Your task to perform on an android device: change keyboard looks Image 0: 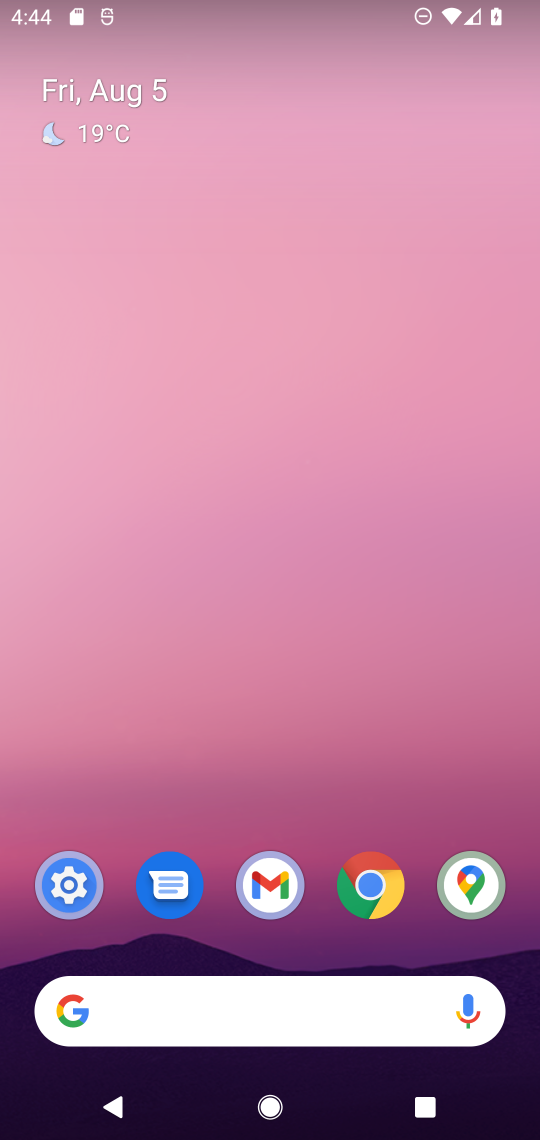
Step 0: drag from (326, 882) to (330, 30)
Your task to perform on an android device: change keyboard looks Image 1: 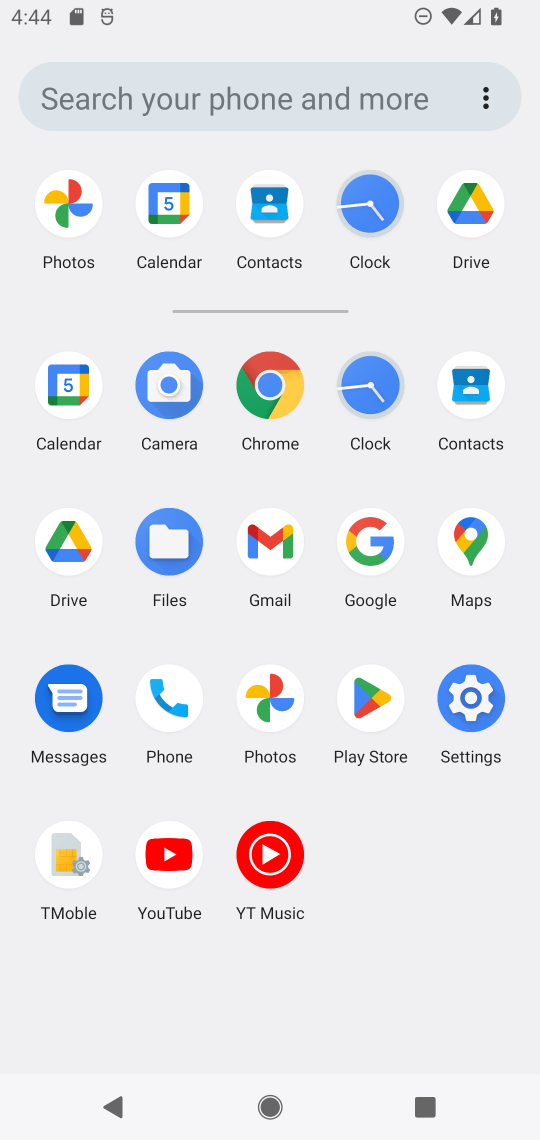
Step 1: click (469, 706)
Your task to perform on an android device: change keyboard looks Image 2: 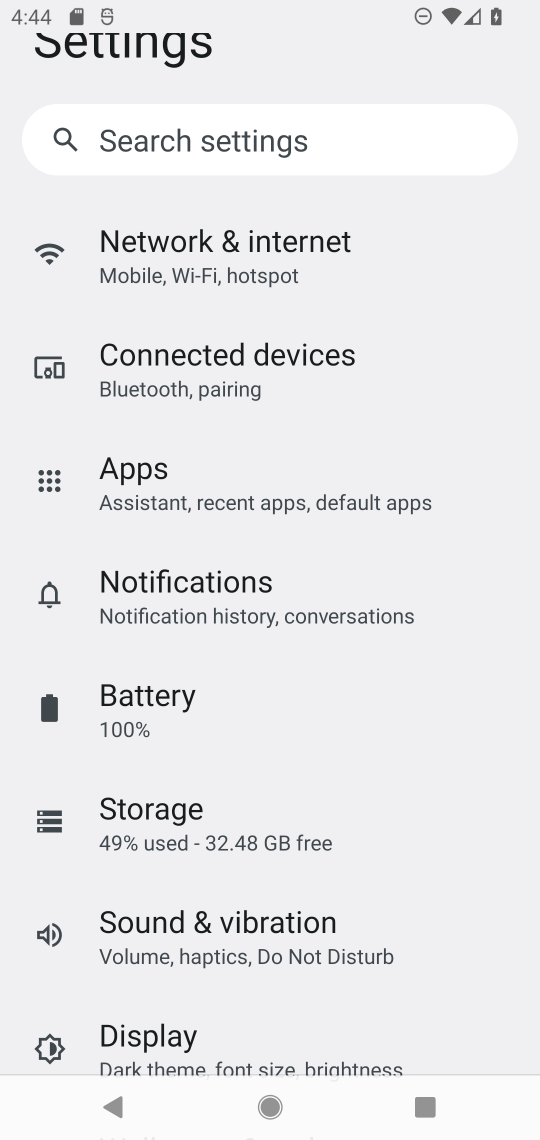
Step 2: drag from (205, 981) to (235, 359)
Your task to perform on an android device: change keyboard looks Image 3: 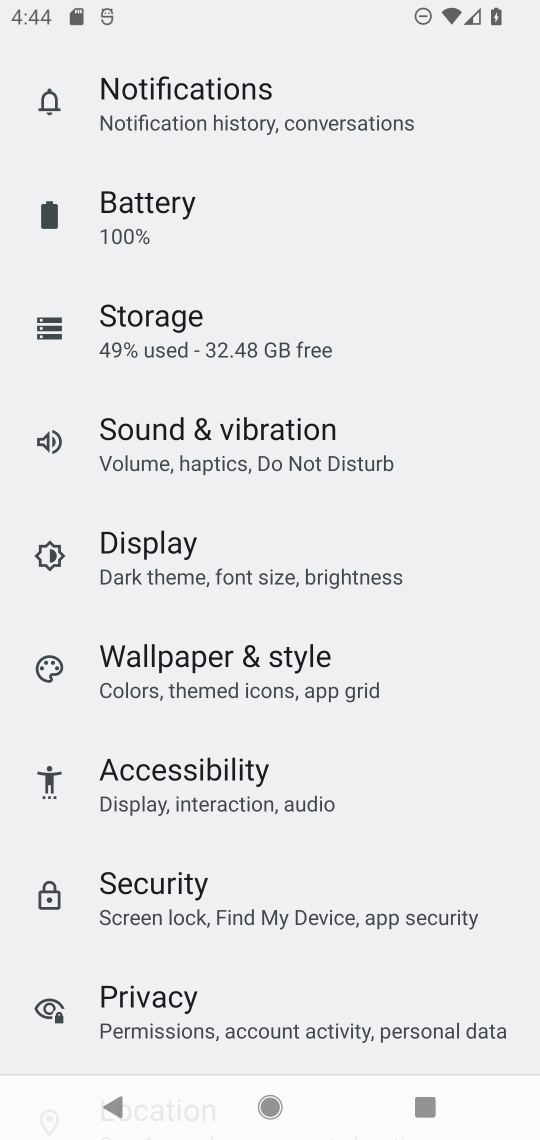
Step 3: drag from (238, 863) to (265, 540)
Your task to perform on an android device: change keyboard looks Image 4: 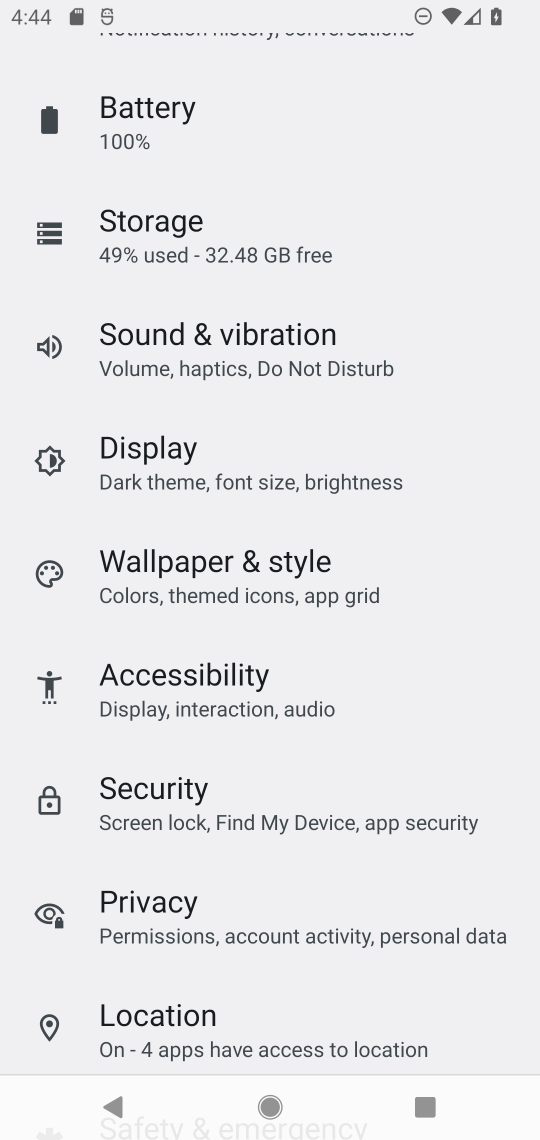
Step 4: drag from (210, 824) to (227, 457)
Your task to perform on an android device: change keyboard looks Image 5: 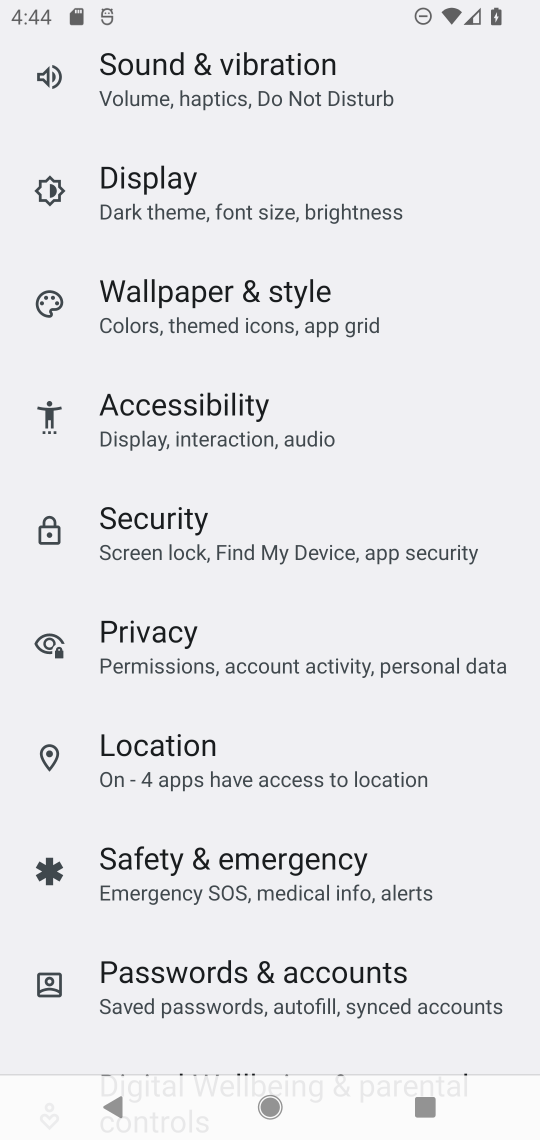
Step 5: drag from (187, 956) to (215, 303)
Your task to perform on an android device: change keyboard looks Image 6: 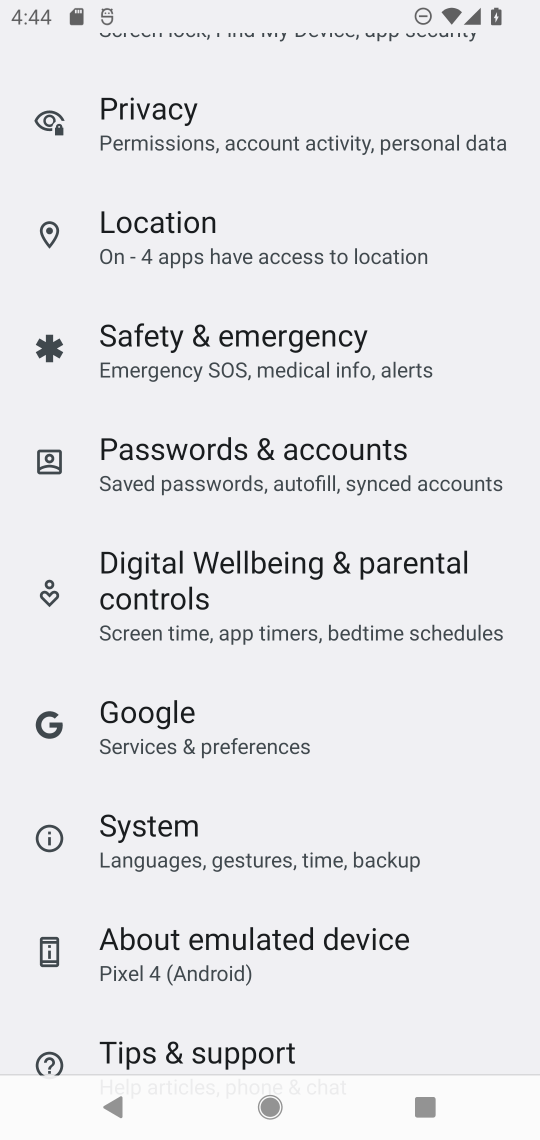
Step 6: drag from (197, 962) to (188, 403)
Your task to perform on an android device: change keyboard looks Image 7: 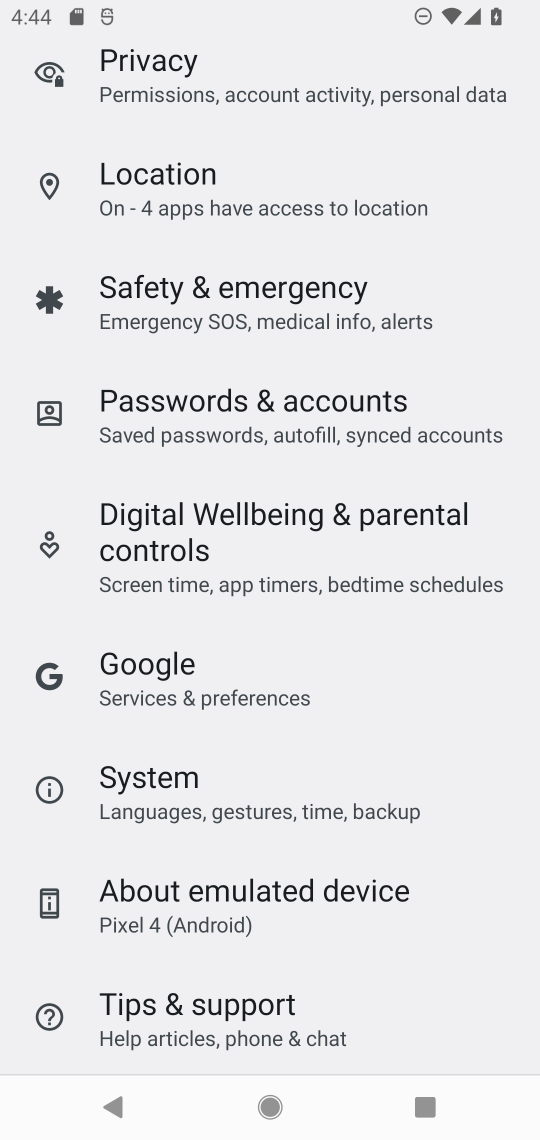
Step 7: click (179, 802)
Your task to perform on an android device: change keyboard looks Image 8: 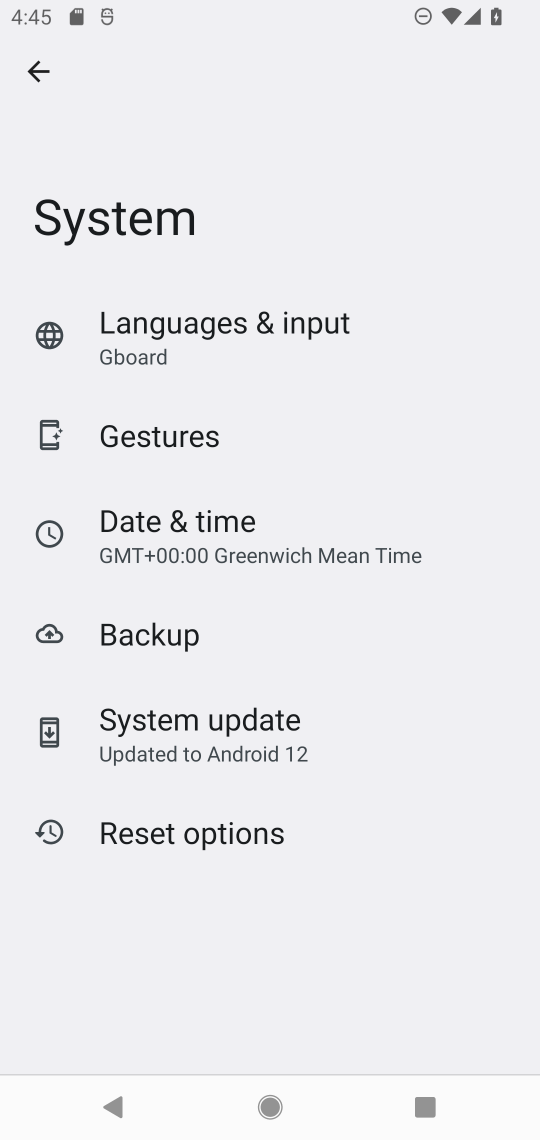
Step 8: click (192, 346)
Your task to perform on an android device: change keyboard looks Image 9: 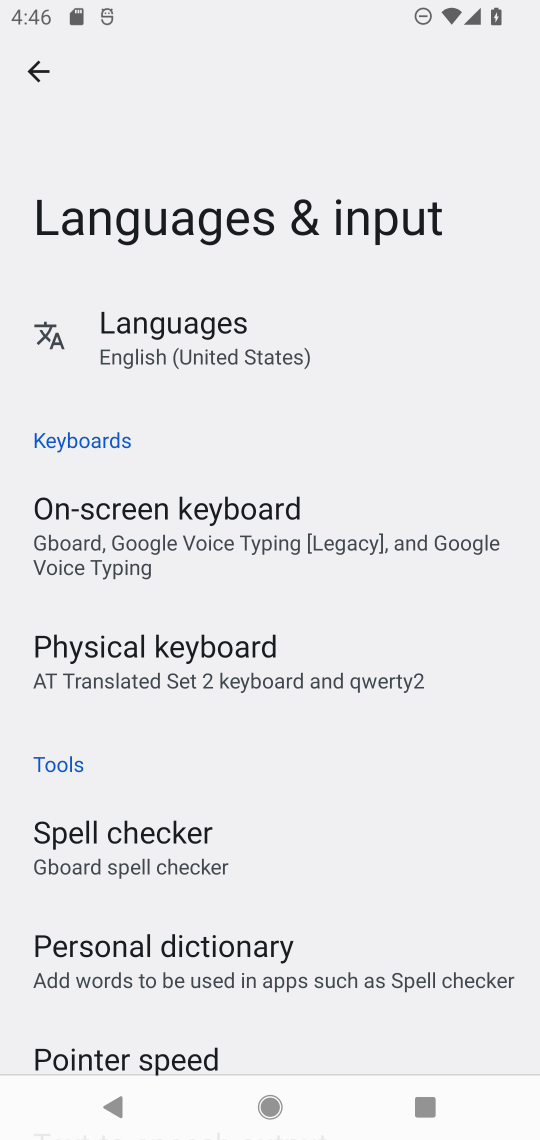
Step 9: click (92, 532)
Your task to perform on an android device: change keyboard looks Image 10: 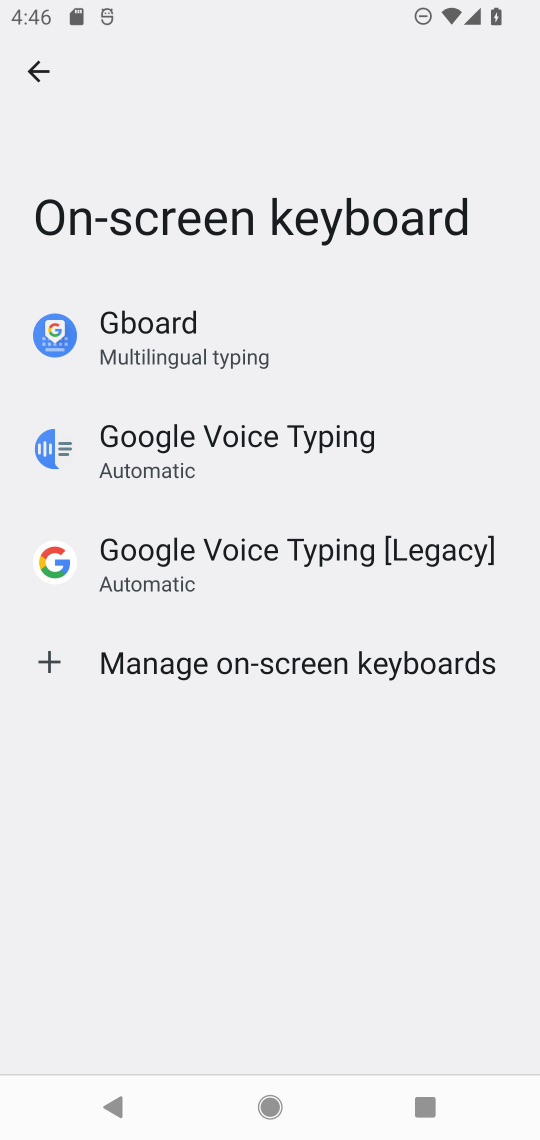
Step 10: click (133, 335)
Your task to perform on an android device: change keyboard looks Image 11: 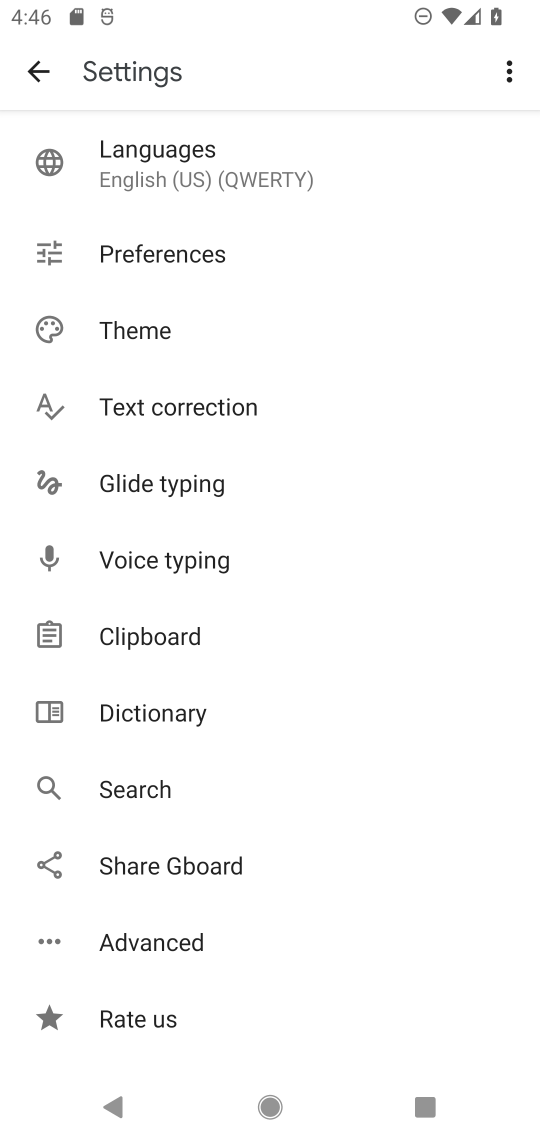
Step 11: click (129, 331)
Your task to perform on an android device: change keyboard looks Image 12: 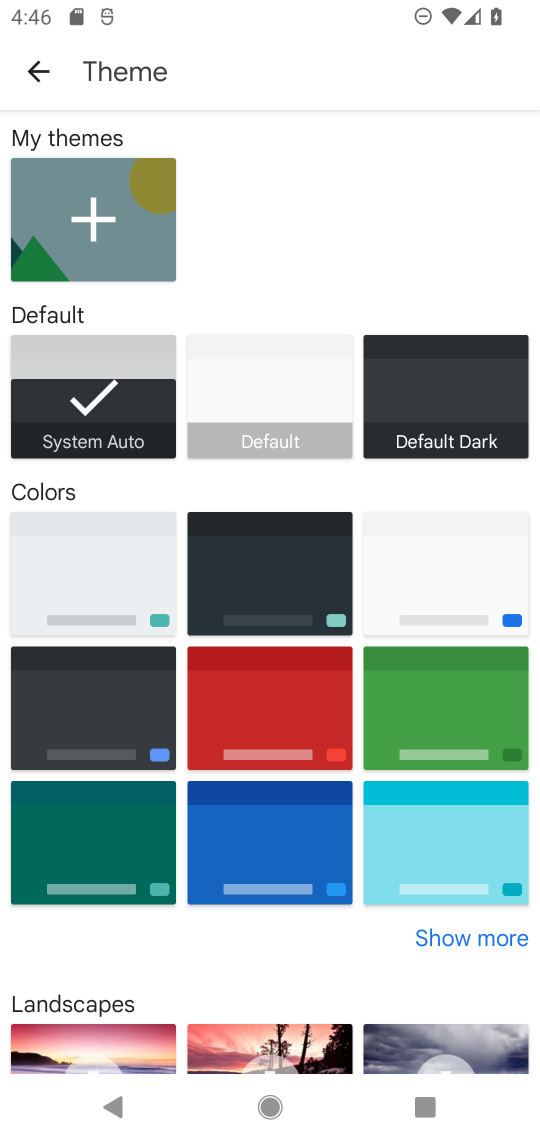
Step 12: click (415, 371)
Your task to perform on an android device: change keyboard looks Image 13: 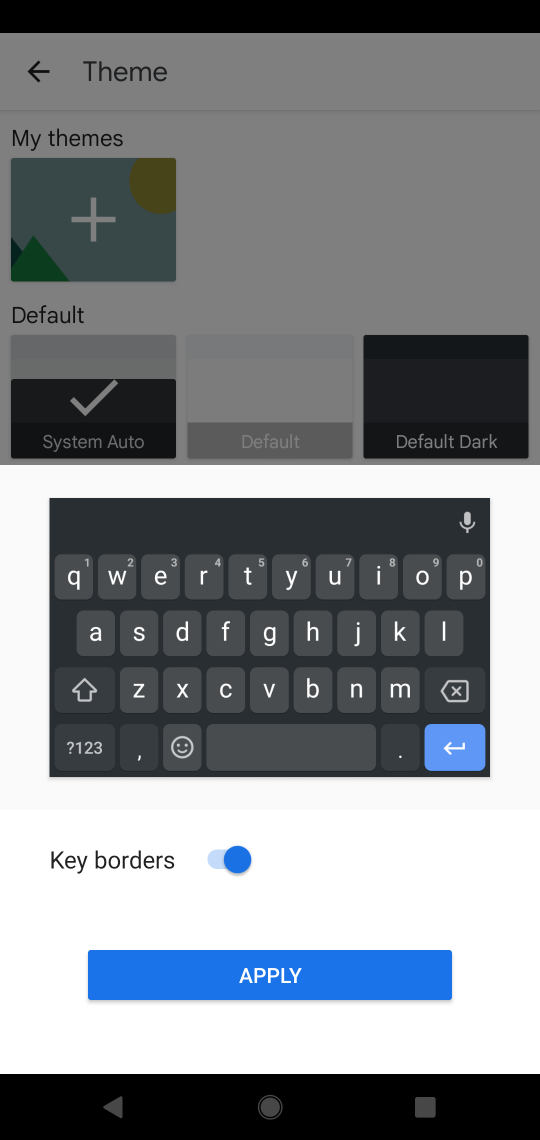
Step 13: click (241, 968)
Your task to perform on an android device: change keyboard looks Image 14: 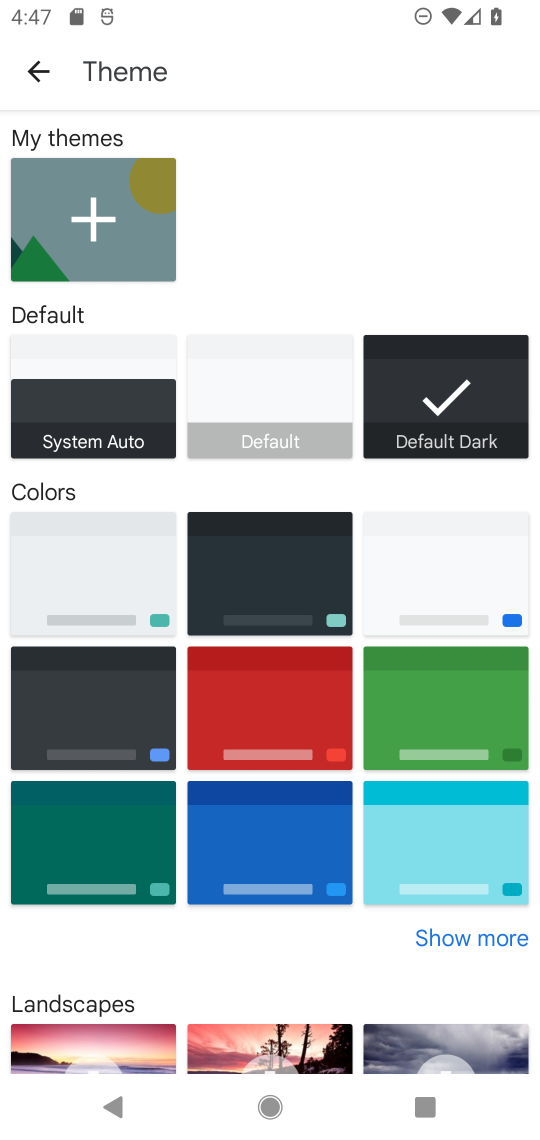
Step 14: task complete